Your task to perform on an android device: Open location settings Image 0: 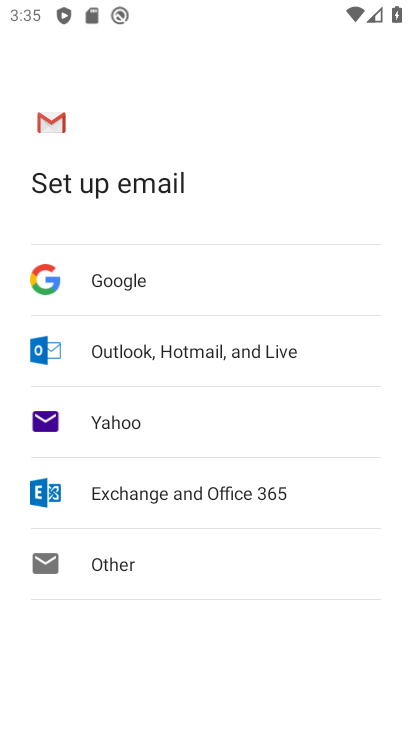
Step 0: press home button
Your task to perform on an android device: Open location settings Image 1: 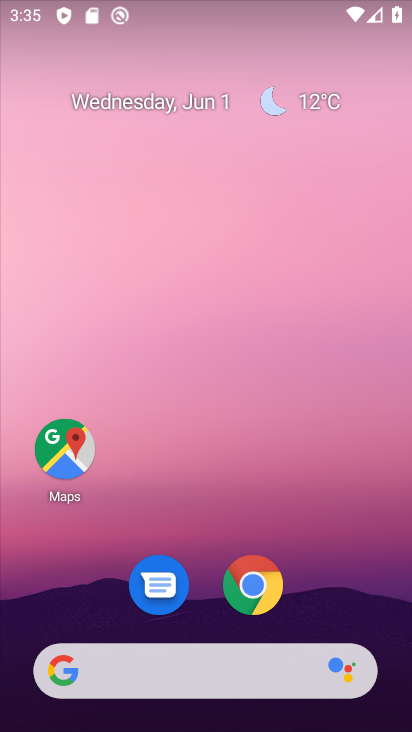
Step 1: drag from (306, 561) to (315, 72)
Your task to perform on an android device: Open location settings Image 2: 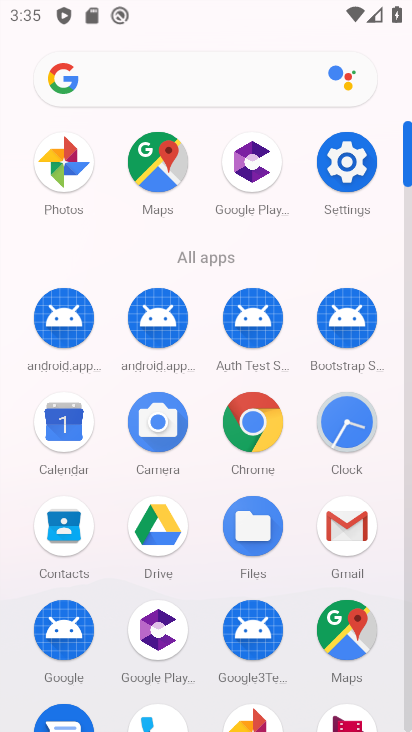
Step 2: click (343, 158)
Your task to perform on an android device: Open location settings Image 3: 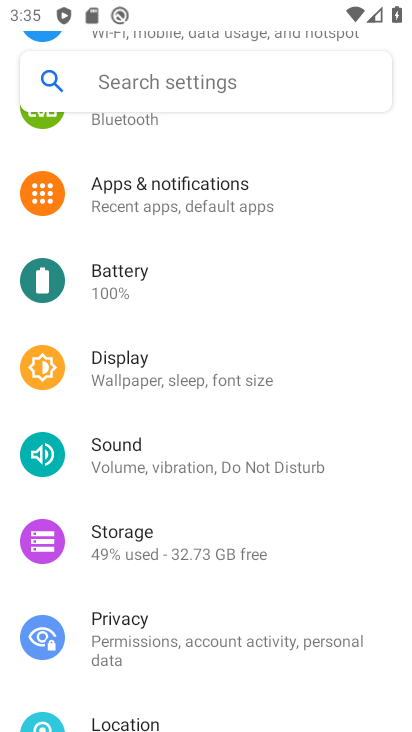
Step 3: drag from (201, 572) to (258, 309)
Your task to perform on an android device: Open location settings Image 4: 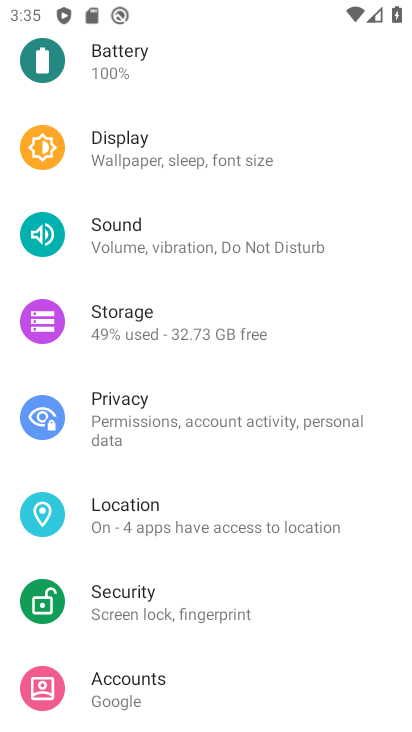
Step 4: click (212, 503)
Your task to perform on an android device: Open location settings Image 5: 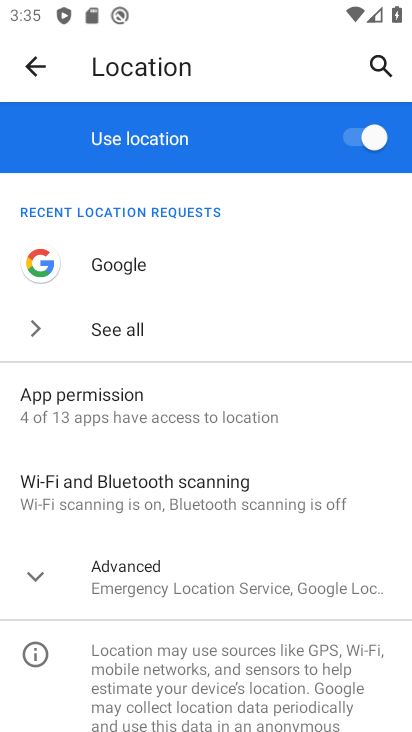
Step 5: task complete